Your task to perform on an android device: Is it going to rain tomorrow? Image 0: 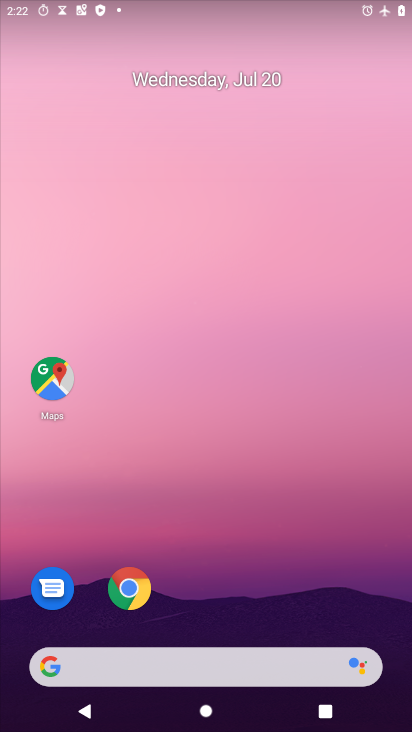
Step 0: drag from (326, 541) to (354, 2)
Your task to perform on an android device: Is it going to rain tomorrow? Image 1: 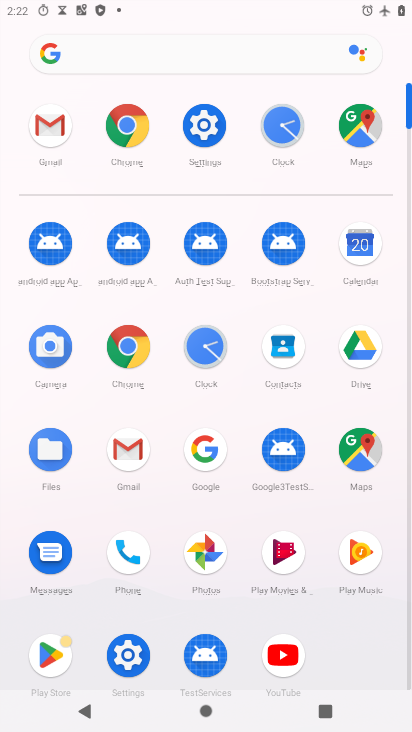
Step 1: click (129, 349)
Your task to perform on an android device: Is it going to rain tomorrow? Image 2: 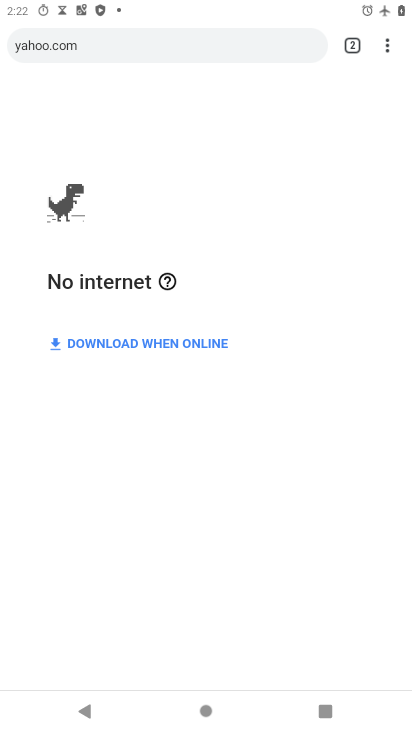
Step 2: click (238, 52)
Your task to perform on an android device: Is it going to rain tomorrow? Image 3: 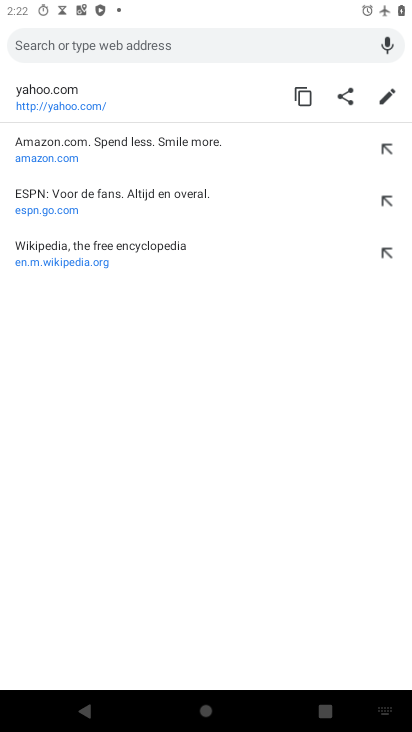
Step 3: type "going to rain tomorrow"
Your task to perform on an android device: Is it going to rain tomorrow? Image 4: 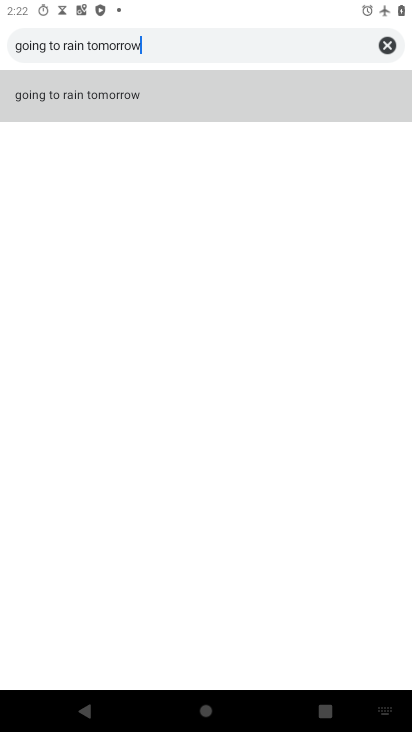
Step 4: click (115, 87)
Your task to perform on an android device: Is it going to rain tomorrow? Image 5: 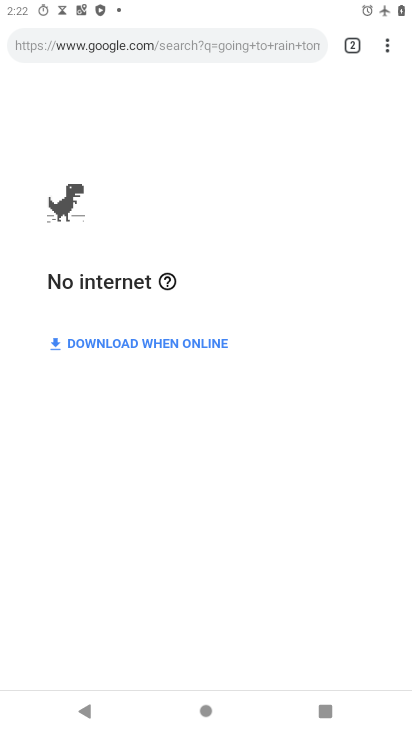
Step 5: task complete